Your task to perform on an android device: Add "razer thresher" to the cart on amazon.com, then select checkout. Image 0: 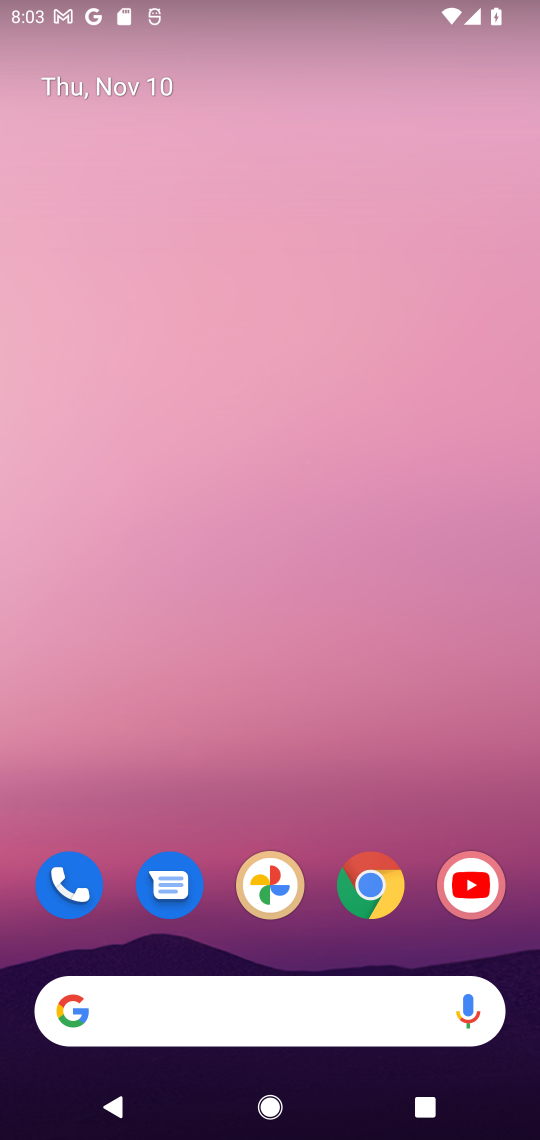
Step 0: click (366, 880)
Your task to perform on an android device: Add "razer thresher" to the cart on amazon.com, then select checkout. Image 1: 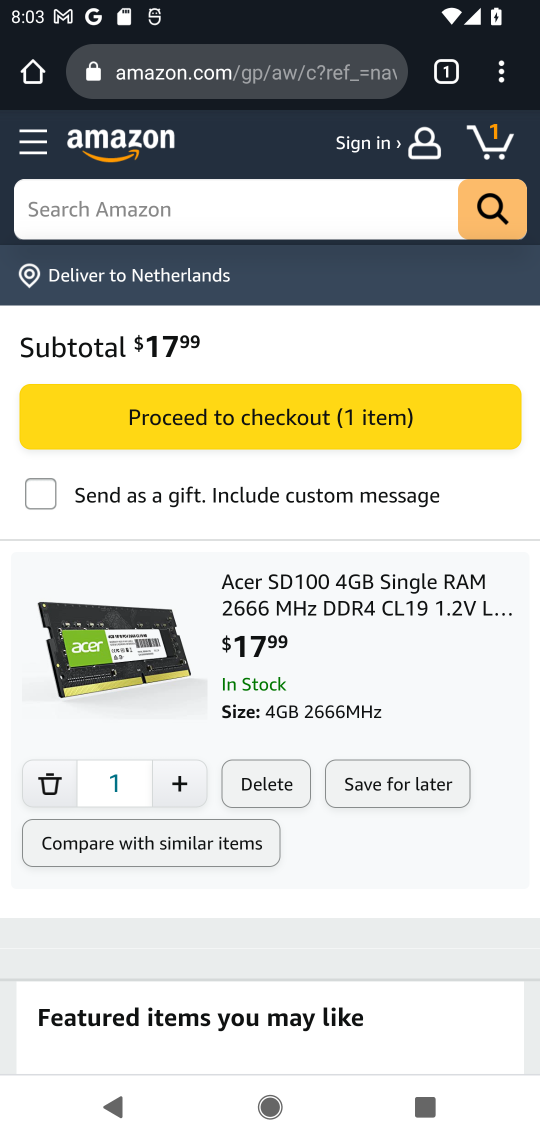
Step 1: type "razer thresher"
Your task to perform on an android device: Add "razer thresher" to the cart on amazon.com, then select checkout. Image 2: 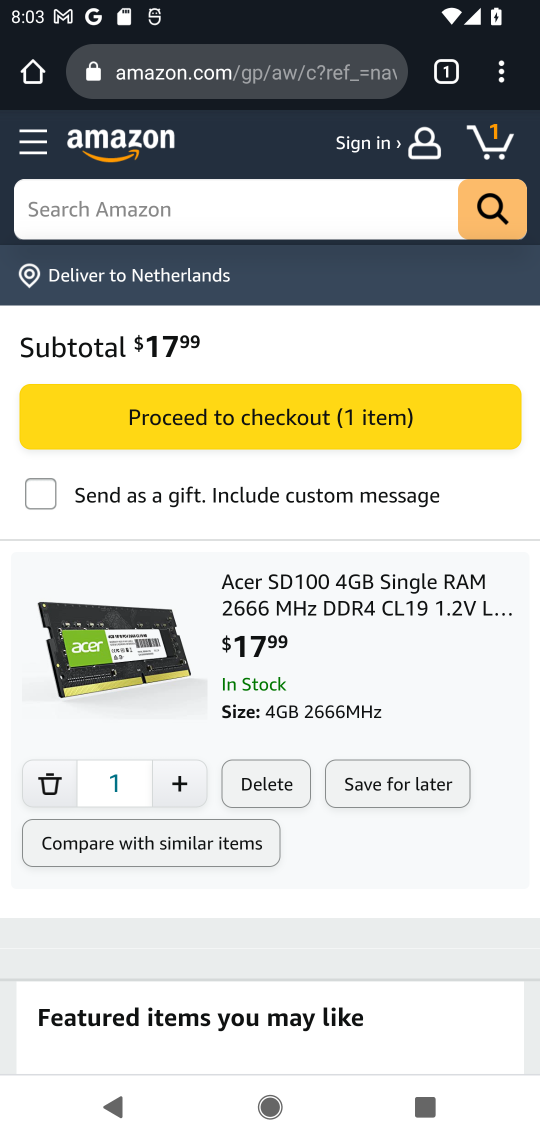
Step 2: press enter
Your task to perform on an android device: Add "razer thresher" to the cart on amazon.com, then select checkout. Image 3: 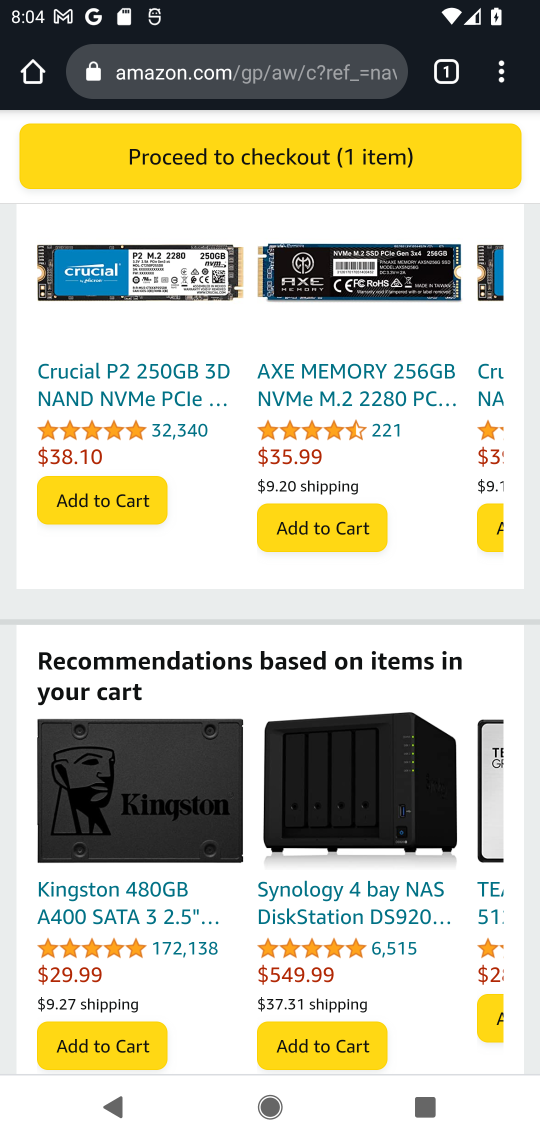
Step 3: drag from (341, 355) to (391, 917)
Your task to perform on an android device: Add "razer thresher" to the cart on amazon.com, then select checkout. Image 4: 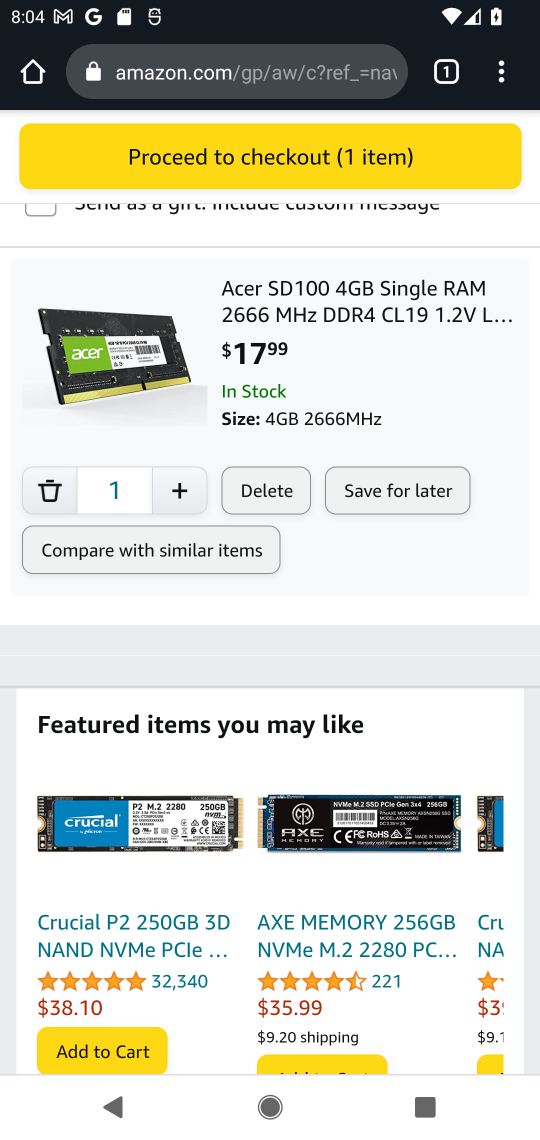
Step 4: drag from (324, 443) to (340, 1005)
Your task to perform on an android device: Add "razer thresher" to the cart on amazon.com, then select checkout. Image 5: 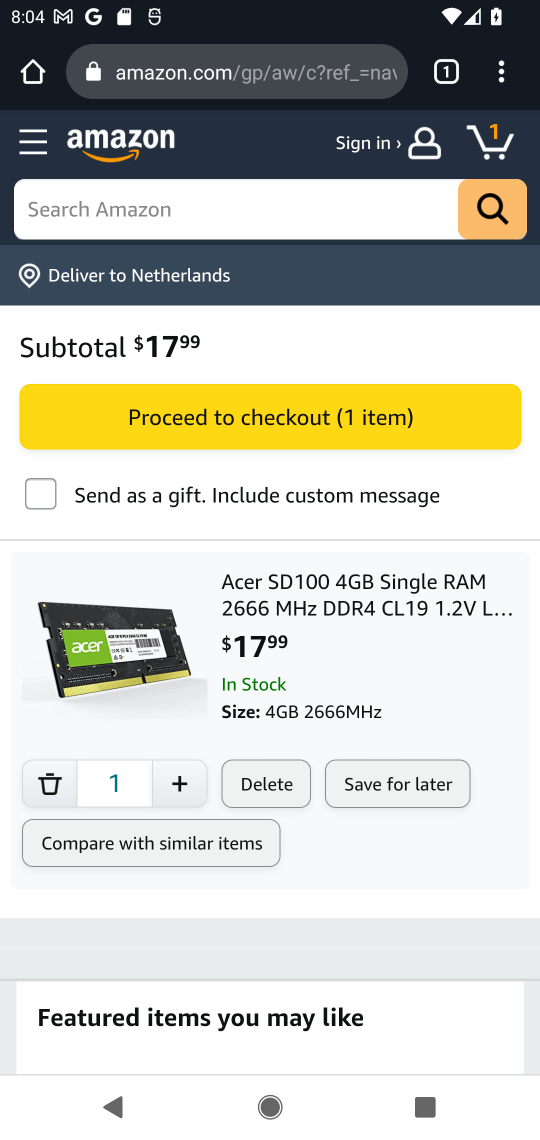
Step 5: click (226, 207)
Your task to perform on an android device: Add "razer thresher" to the cart on amazon.com, then select checkout. Image 6: 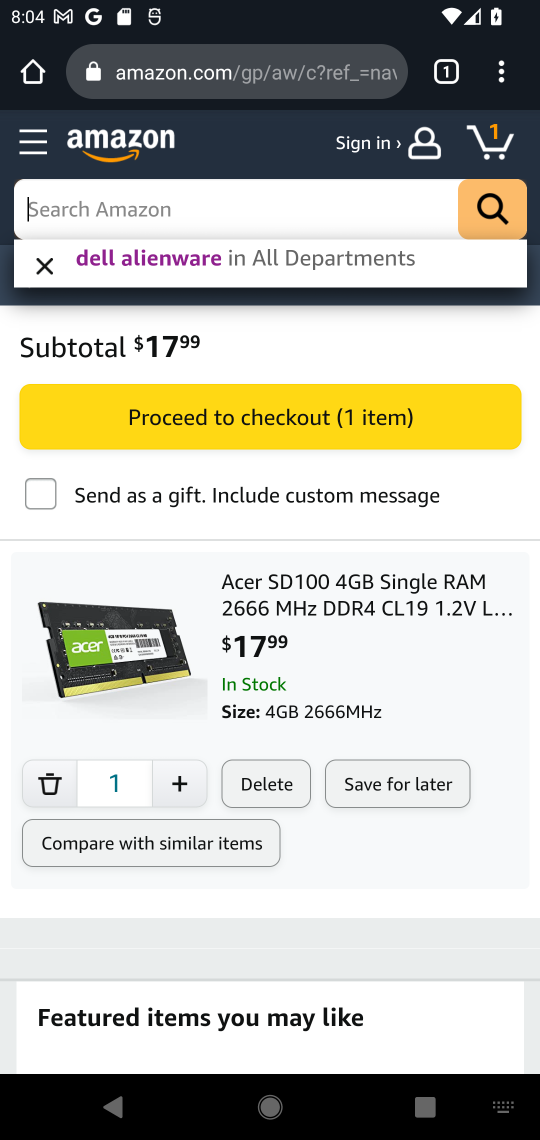
Step 6: type "razer thresher"
Your task to perform on an android device: Add "razer thresher" to the cart on amazon.com, then select checkout. Image 7: 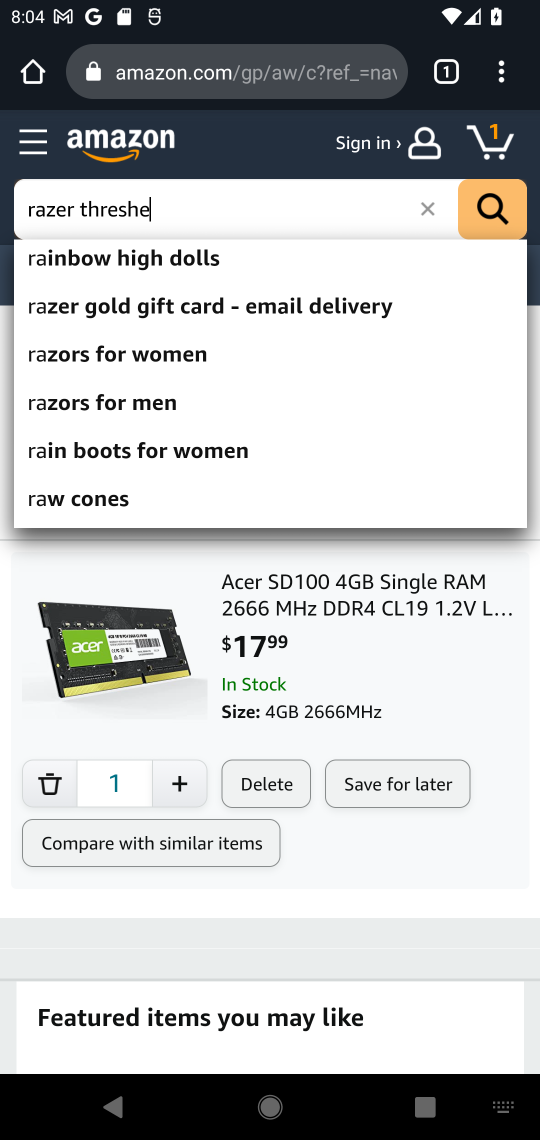
Step 7: press enter
Your task to perform on an android device: Add "razer thresher" to the cart on amazon.com, then select checkout. Image 8: 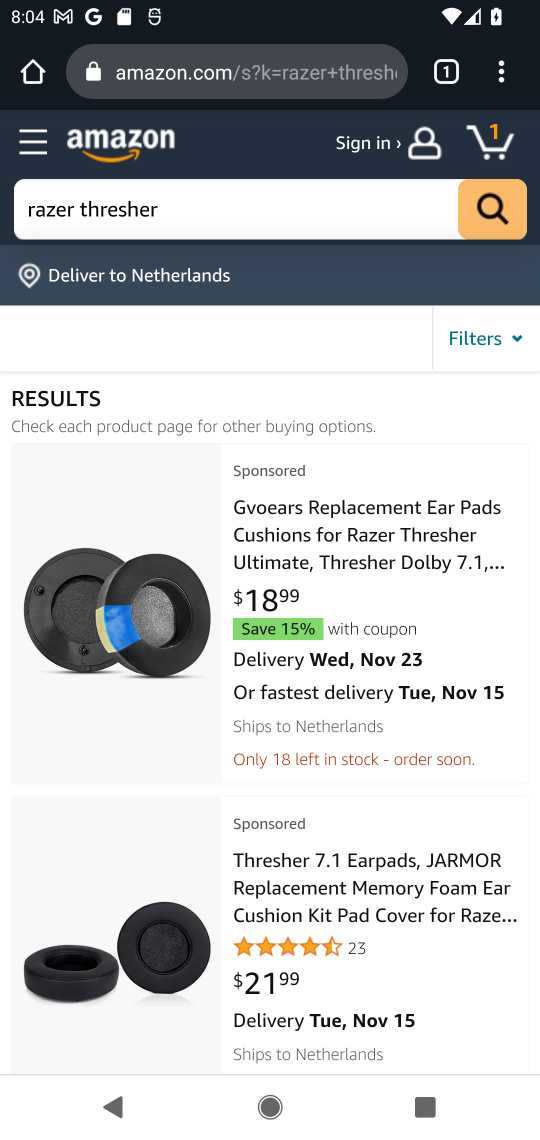
Step 8: drag from (446, 982) to (496, 455)
Your task to perform on an android device: Add "razer thresher" to the cart on amazon.com, then select checkout. Image 9: 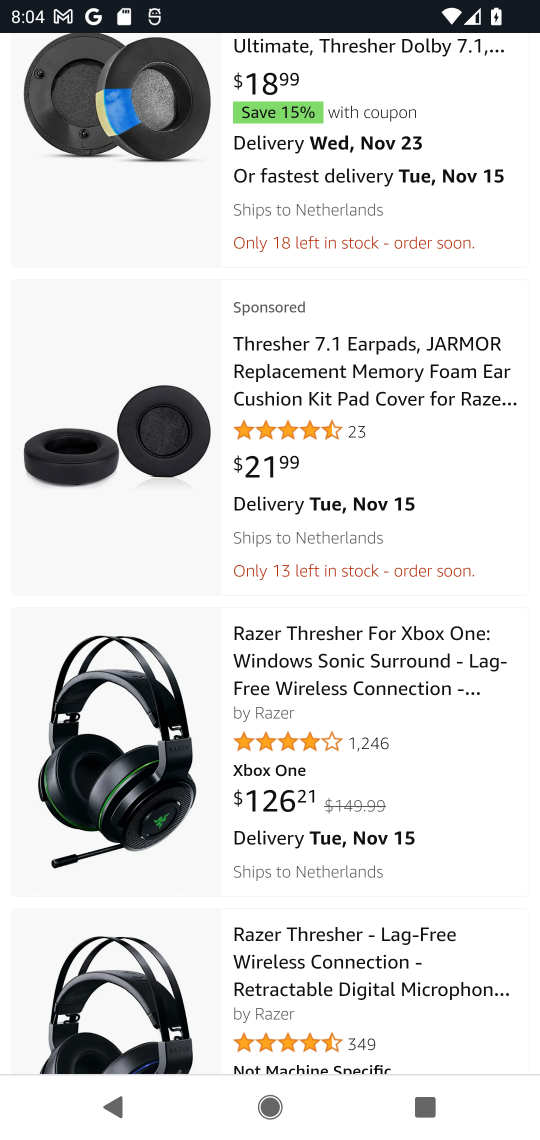
Step 9: drag from (393, 916) to (409, 780)
Your task to perform on an android device: Add "razer thresher" to the cart on amazon.com, then select checkout. Image 10: 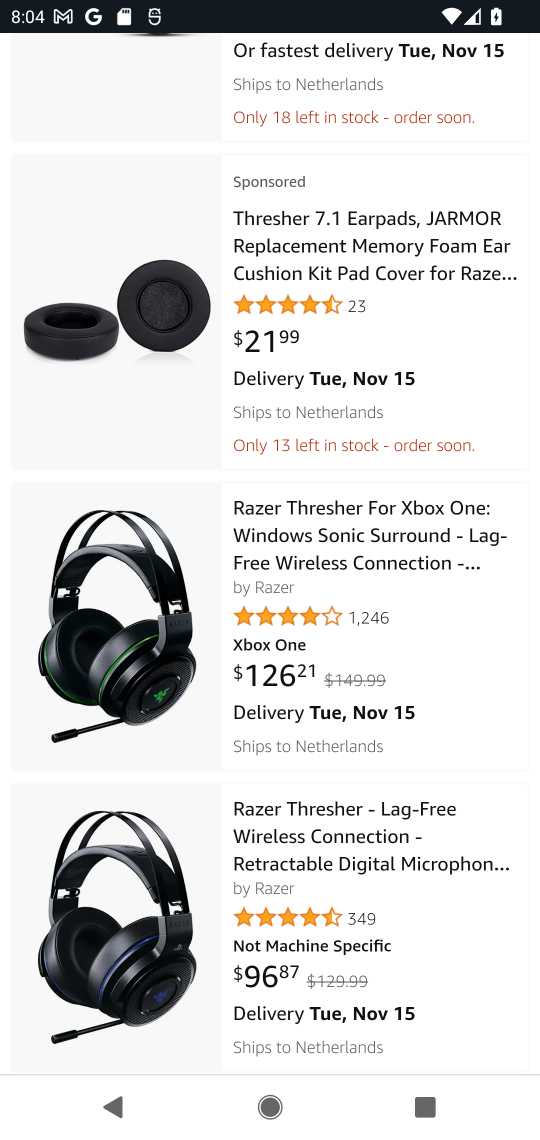
Step 10: click (98, 597)
Your task to perform on an android device: Add "razer thresher" to the cart on amazon.com, then select checkout. Image 11: 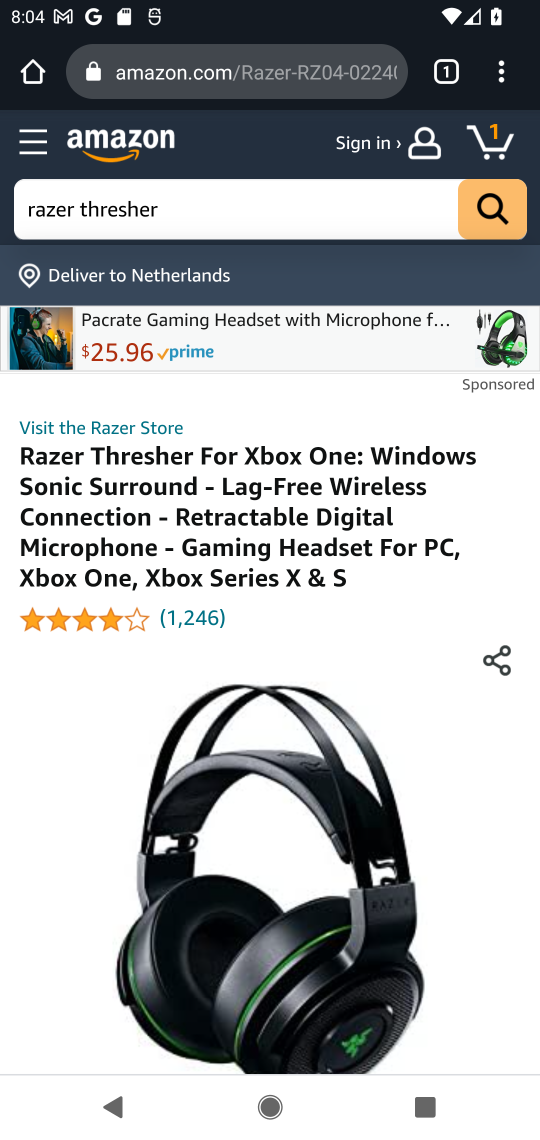
Step 11: drag from (292, 860) to (380, 119)
Your task to perform on an android device: Add "razer thresher" to the cart on amazon.com, then select checkout. Image 12: 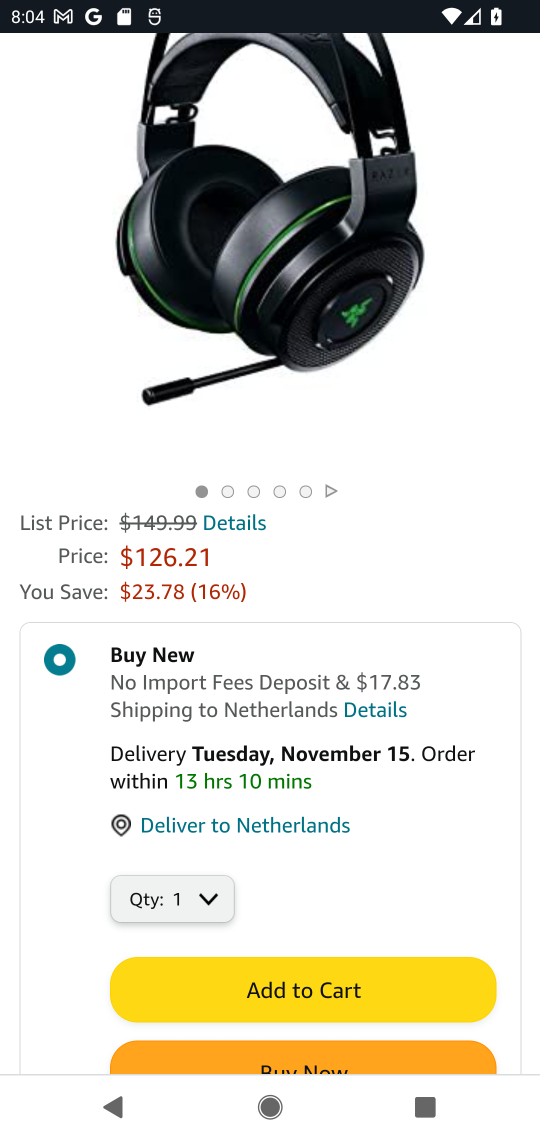
Step 12: drag from (375, 816) to (390, 524)
Your task to perform on an android device: Add "razer thresher" to the cart on amazon.com, then select checkout. Image 13: 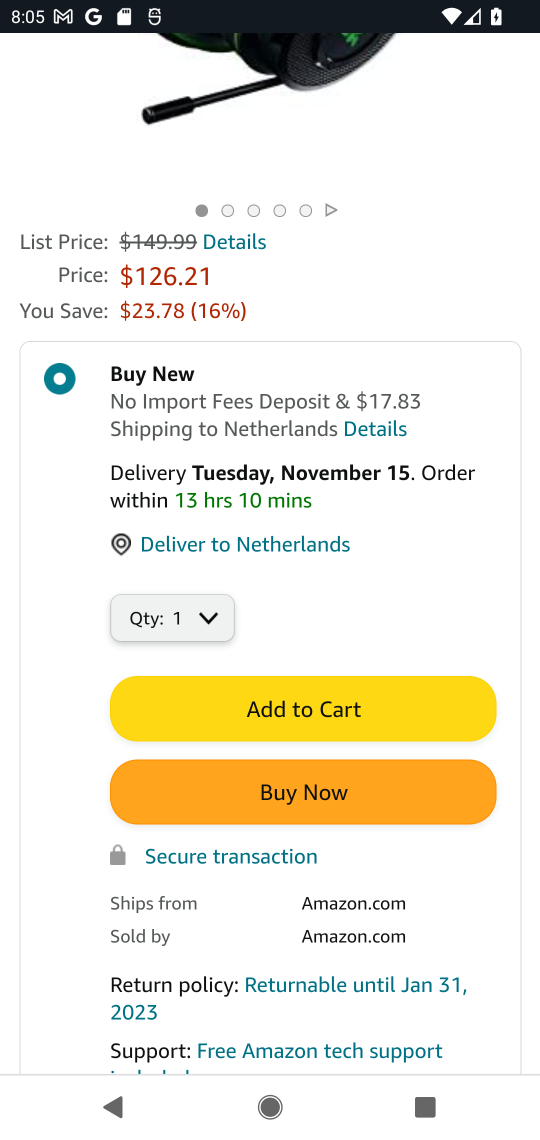
Step 13: click (307, 705)
Your task to perform on an android device: Add "razer thresher" to the cart on amazon.com, then select checkout. Image 14: 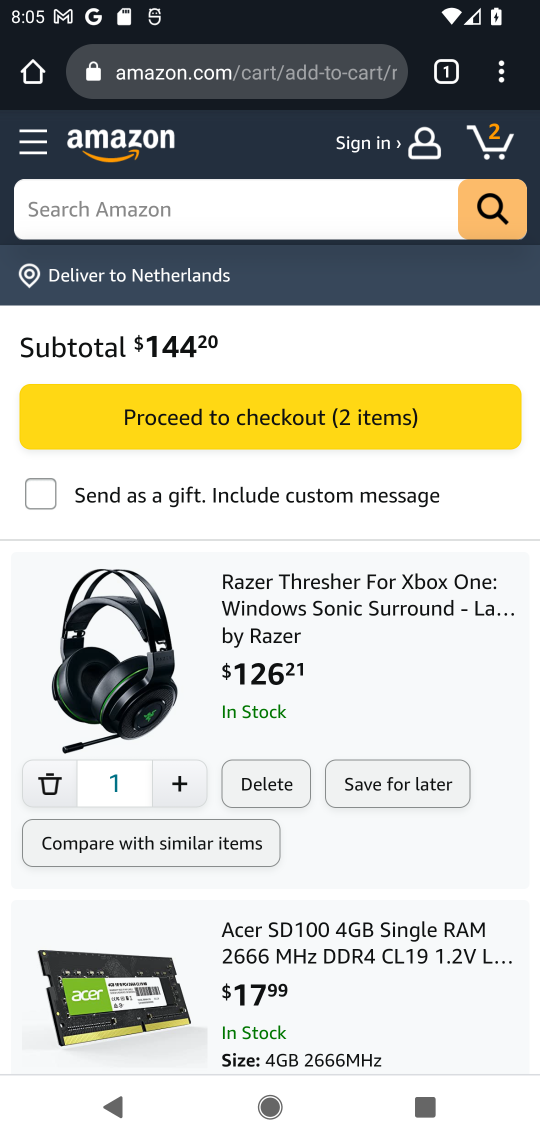
Step 14: click (280, 408)
Your task to perform on an android device: Add "razer thresher" to the cart on amazon.com, then select checkout. Image 15: 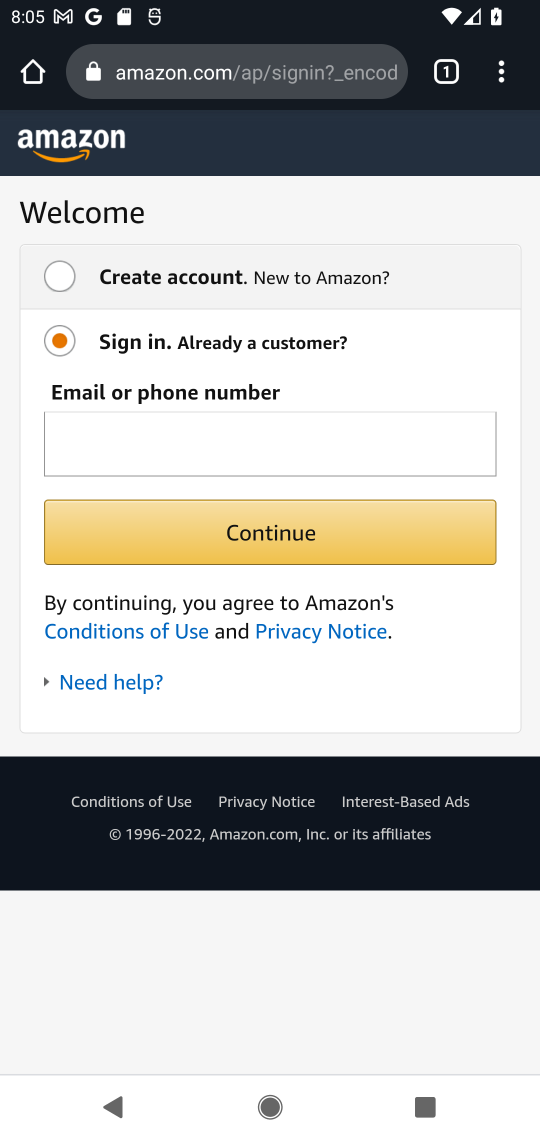
Step 15: task complete